Your task to perform on an android device: Set the phone to "Do not disturb". Image 0: 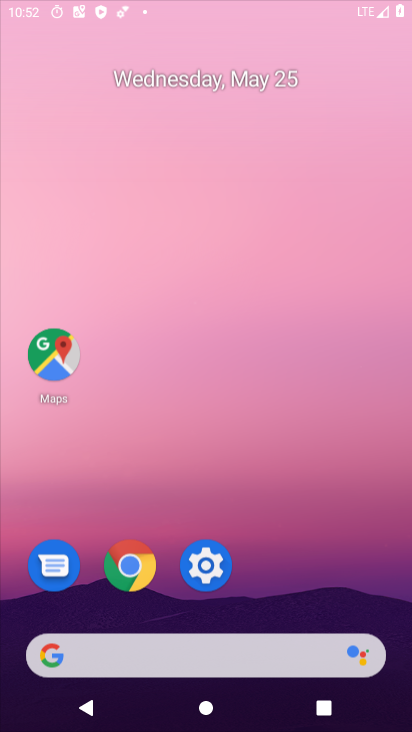
Step 0: drag from (144, 431) to (92, 13)
Your task to perform on an android device: Set the phone to "Do not disturb". Image 1: 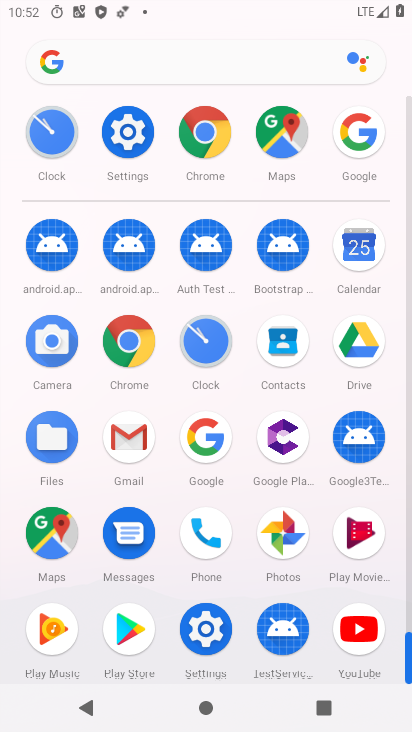
Step 1: click (205, 631)
Your task to perform on an android device: Set the phone to "Do not disturb". Image 2: 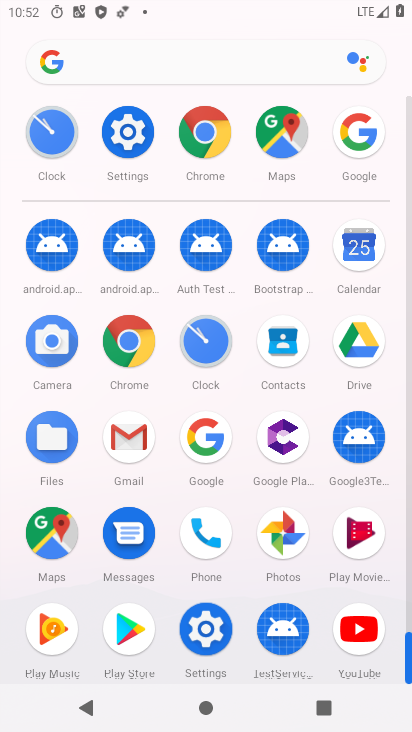
Step 2: click (205, 631)
Your task to perform on an android device: Set the phone to "Do not disturb". Image 3: 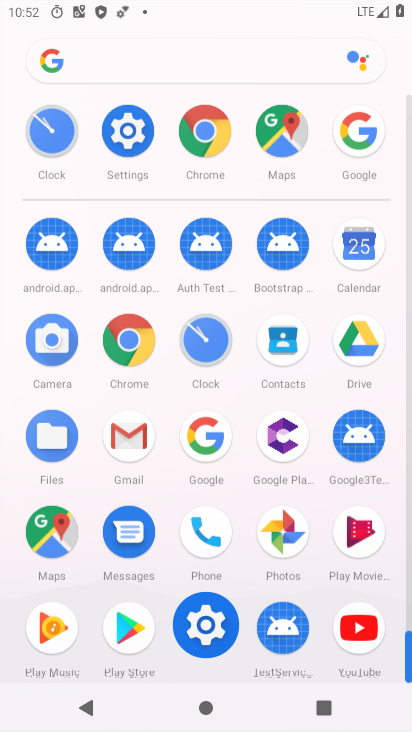
Step 3: click (205, 631)
Your task to perform on an android device: Set the phone to "Do not disturb". Image 4: 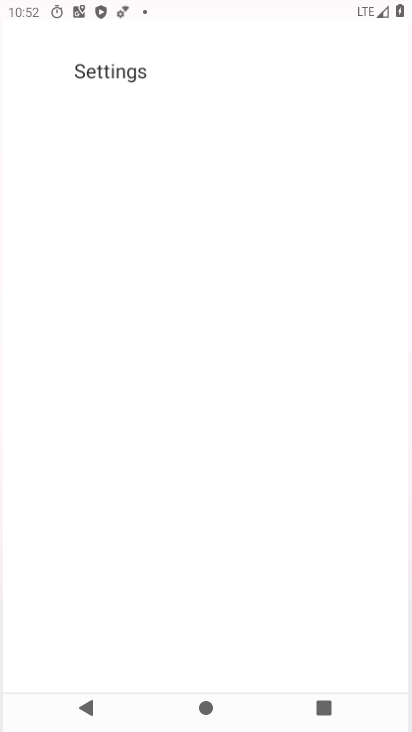
Step 4: click (206, 632)
Your task to perform on an android device: Set the phone to "Do not disturb". Image 5: 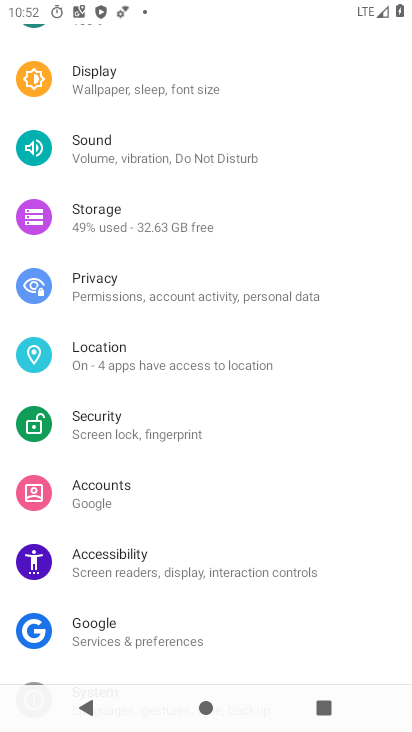
Step 5: click (205, 633)
Your task to perform on an android device: Set the phone to "Do not disturb". Image 6: 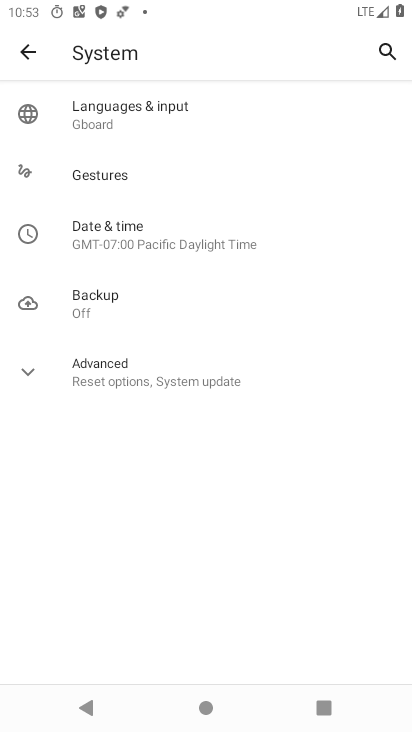
Step 6: click (23, 47)
Your task to perform on an android device: Set the phone to "Do not disturb". Image 7: 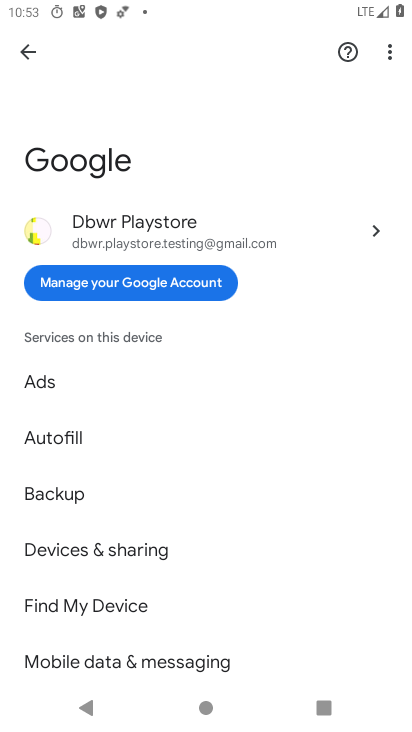
Step 7: press back button
Your task to perform on an android device: Set the phone to "Do not disturb". Image 8: 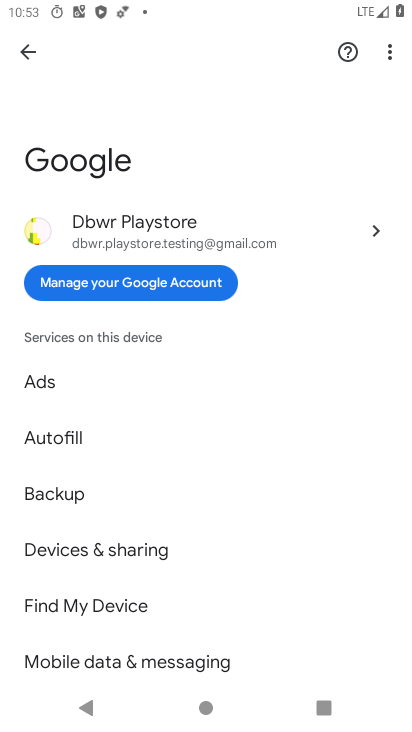
Step 8: press home button
Your task to perform on an android device: Set the phone to "Do not disturb". Image 9: 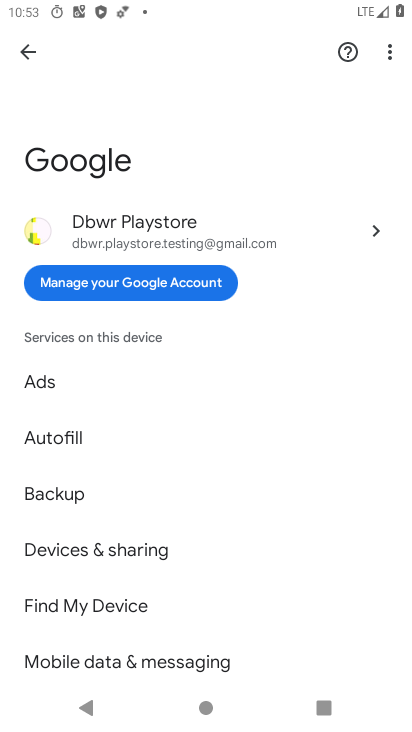
Step 9: press home button
Your task to perform on an android device: Set the phone to "Do not disturb". Image 10: 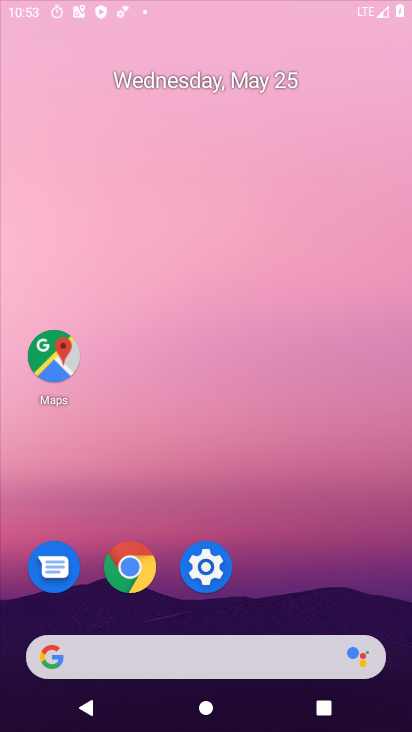
Step 10: press home button
Your task to perform on an android device: Set the phone to "Do not disturb". Image 11: 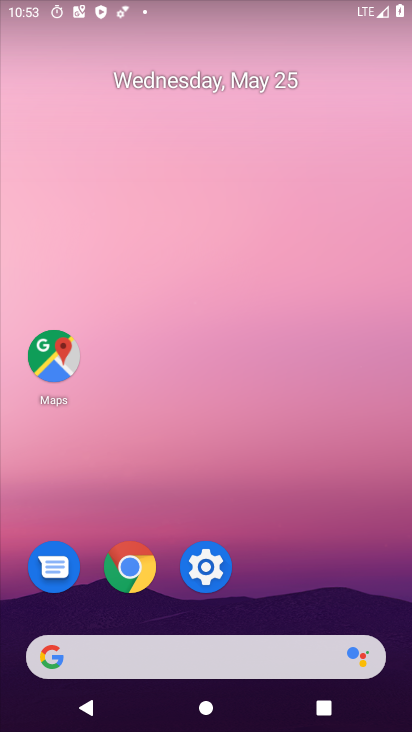
Step 11: drag from (265, 670) to (207, 88)
Your task to perform on an android device: Set the phone to "Do not disturb". Image 12: 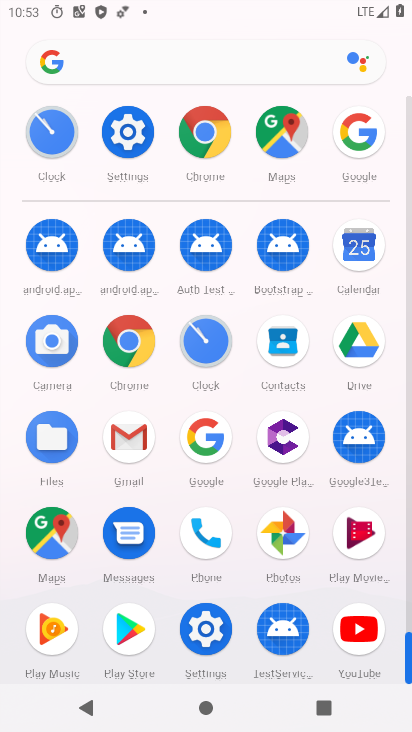
Step 12: click (202, 632)
Your task to perform on an android device: Set the phone to "Do not disturb". Image 13: 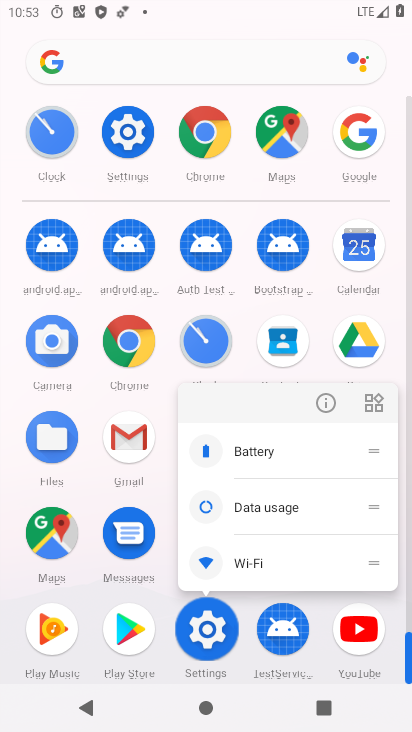
Step 13: click (201, 633)
Your task to perform on an android device: Set the phone to "Do not disturb". Image 14: 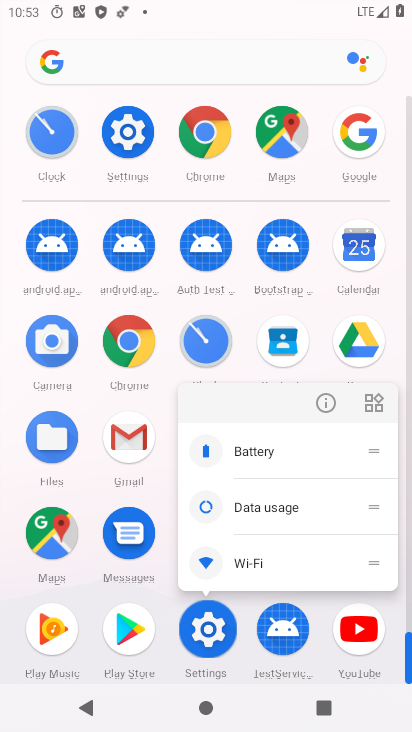
Step 14: click (210, 639)
Your task to perform on an android device: Set the phone to "Do not disturb". Image 15: 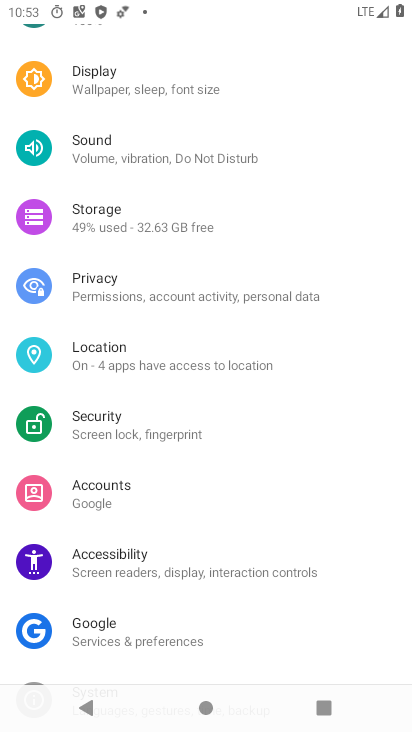
Step 15: click (132, 155)
Your task to perform on an android device: Set the phone to "Do not disturb". Image 16: 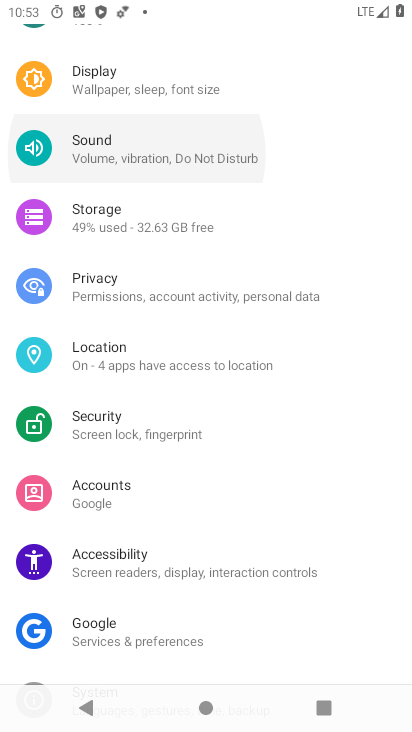
Step 16: click (132, 155)
Your task to perform on an android device: Set the phone to "Do not disturb". Image 17: 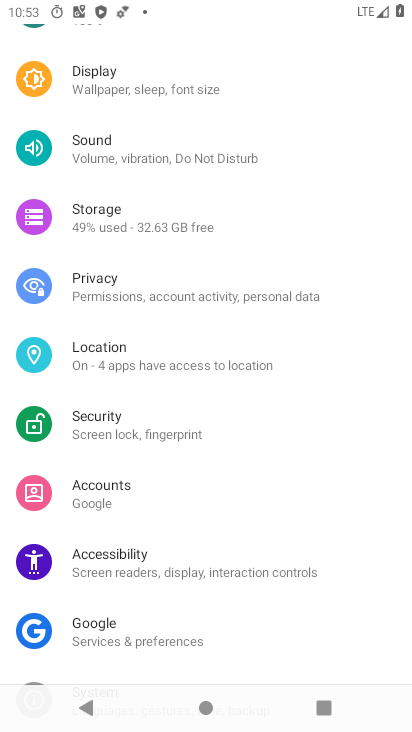
Step 17: click (132, 155)
Your task to perform on an android device: Set the phone to "Do not disturb". Image 18: 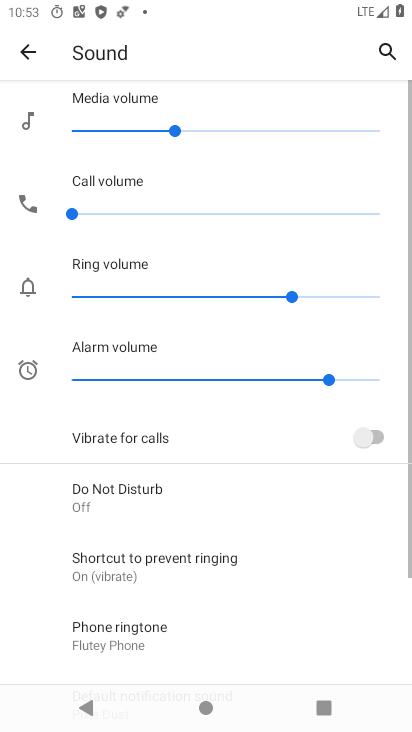
Step 18: click (131, 156)
Your task to perform on an android device: Set the phone to "Do not disturb". Image 19: 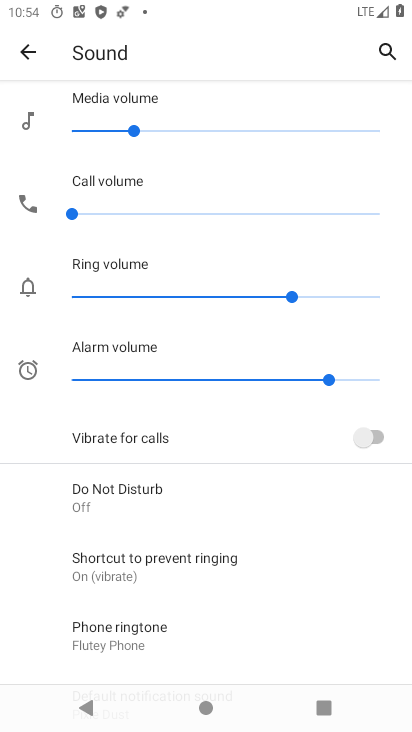
Step 19: click (92, 495)
Your task to perform on an android device: Set the phone to "Do not disturb". Image 20: 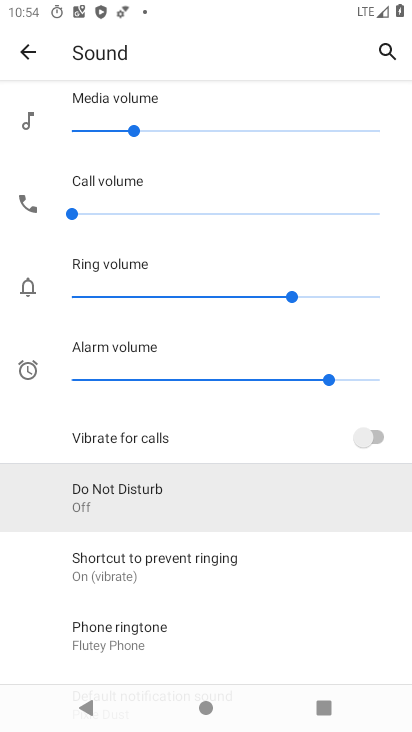
Step 20: click (93, 493)
Your task to perform on an android device: Set the phone to "Do not disturb". Image 21: 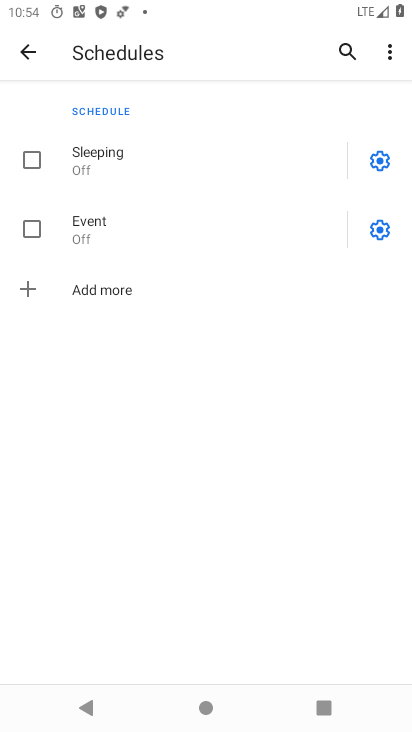
Step 21: click (22, 51)
Your task to perform on an android device: Set the phone to "Do not disturb". Image 22: 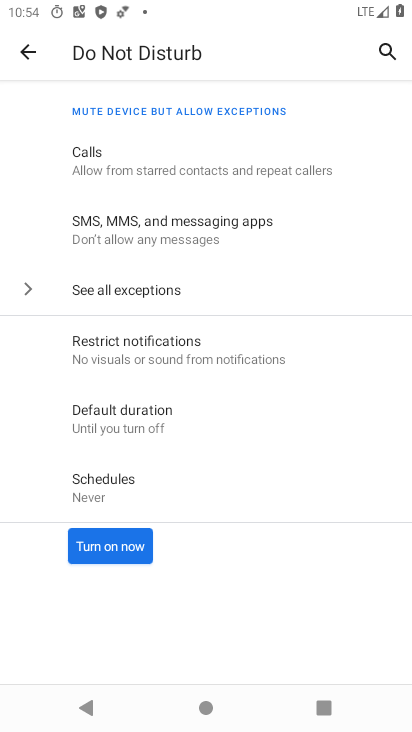
Step 22: click (110, 549)
Your task to perform on an android device: Set the phone to "Do not disturb". Image 23: 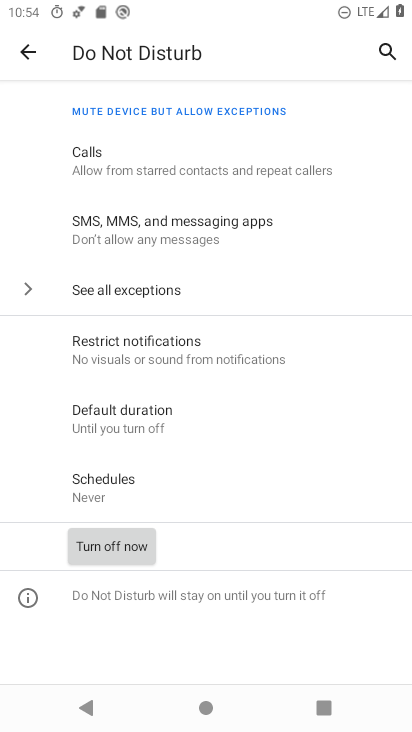
Step 23: task complete